Your task to perform on an android device: move an email to a new category in the gmail app Image 0: 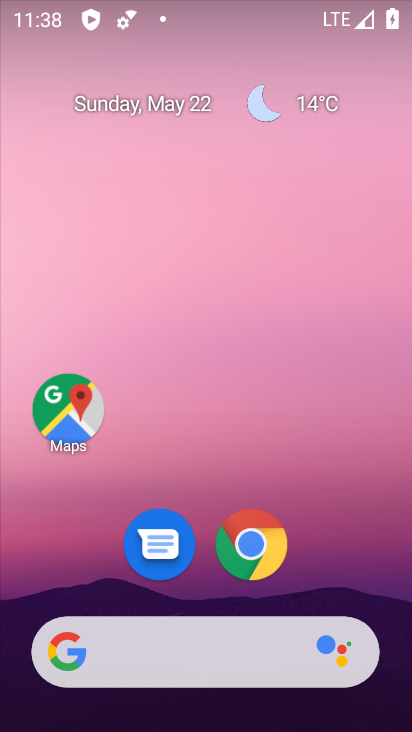
Step 0: drag from (307, 590) to (265, 111)
Your task to perform on an android device: move an email to a new category in the gmail app Image 1: 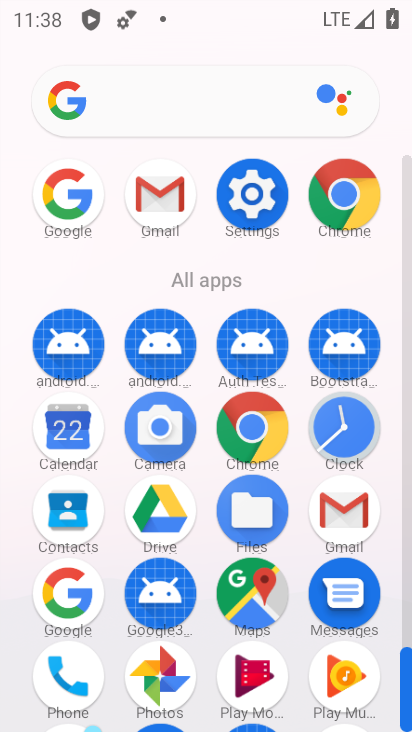
Step 1: press home button
Your task to perform on an android device: move an email to a new category in the gmail app Image 2: 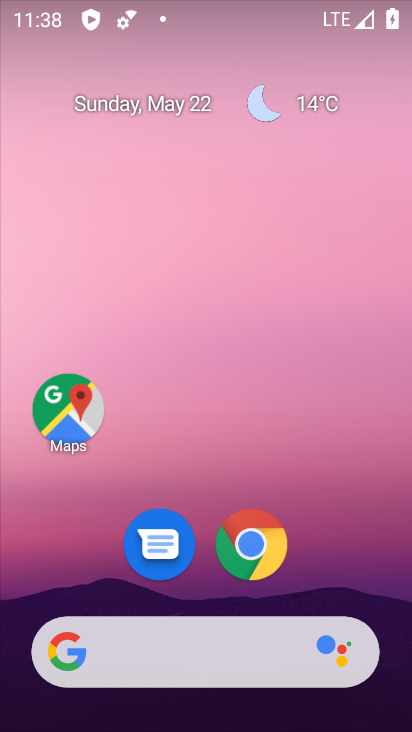
Step 2: drag from (324, 587) to (310, 36)
Your task to perform on an android device: move an email to a new category in the gmail app Image 3: 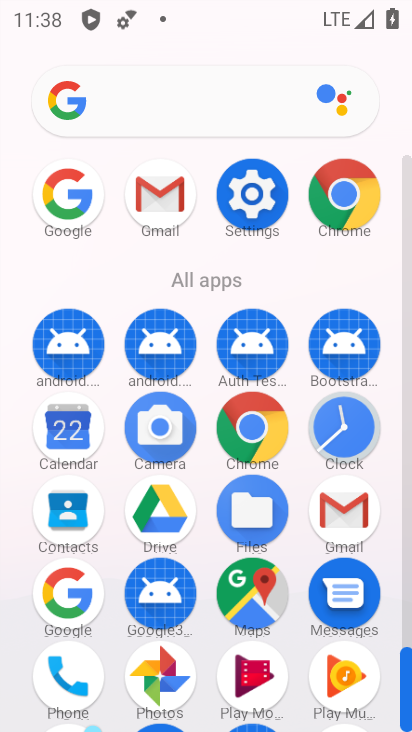
Step 3: click (165, 203)
Your task to perform on an android device: move an email to a new category in the gmail app Image 4: 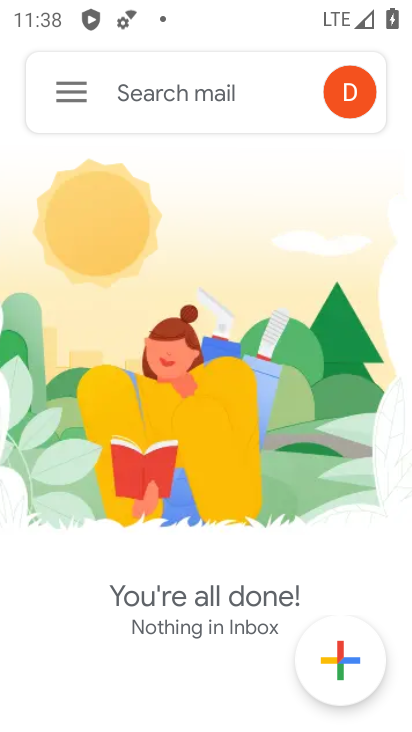
Step 4: click (70, 100)
Your task to perform on an android device: move an email to a new category in the gmail app Image 5: 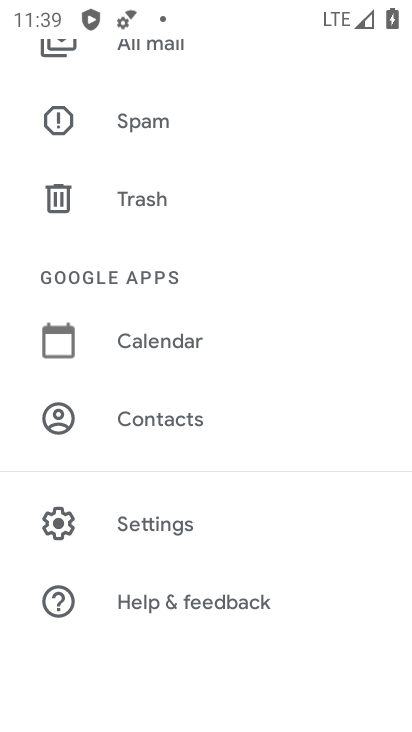
Step 5: click (142, 51)
Your task to perform on an android device: move an email to a new category in the gmail app Image 6: 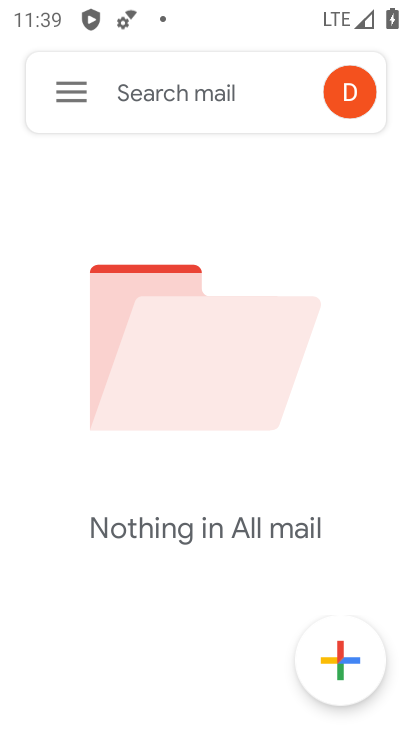
Step 6: task complete